Your task to perform on an android device: What's the weather? Image 0: 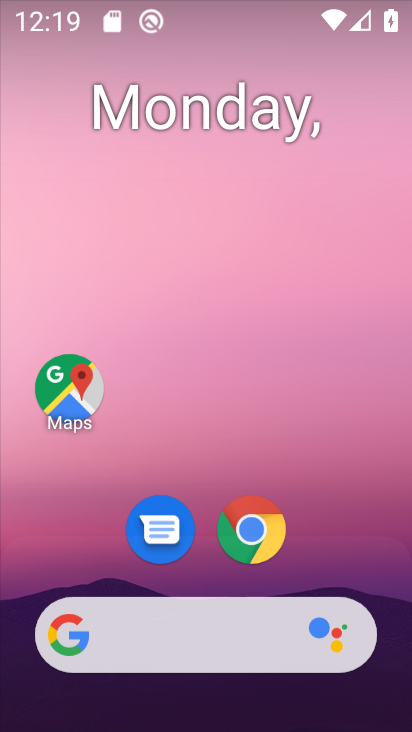
Step 0: drag from (343, 554) to (180, 0)
Your task to perform on an android device: What's the weather? Image 1: 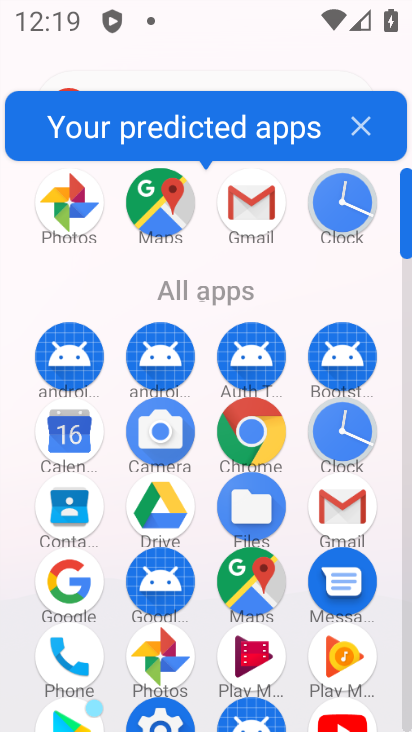
Step 1: drag from (203, 500) to (198, 225)
Your task to perform on an android device: What's the weather? Image 2: 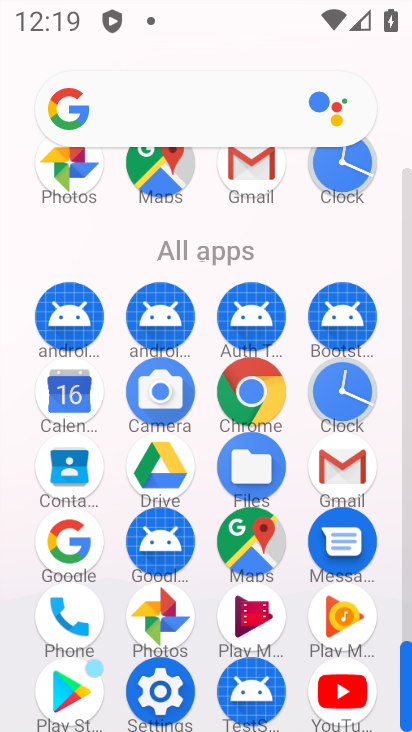
Step 2: click (68, 538)
Your task to perform on an android device: What's the weather? Image 3: 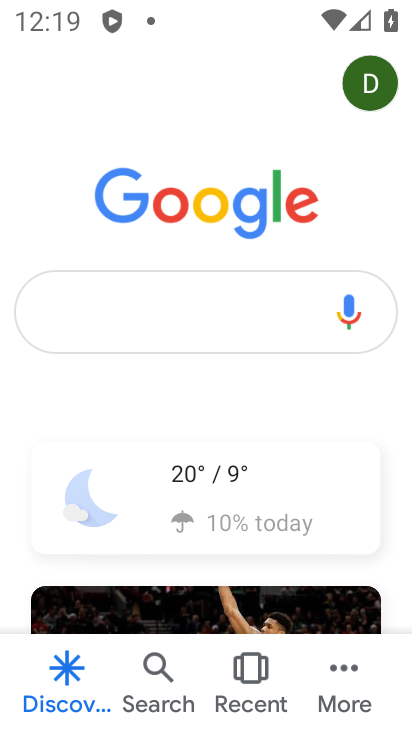
Step 3: click (203, 469)
Your task to perform on an android device: What's the weather? Image 4: 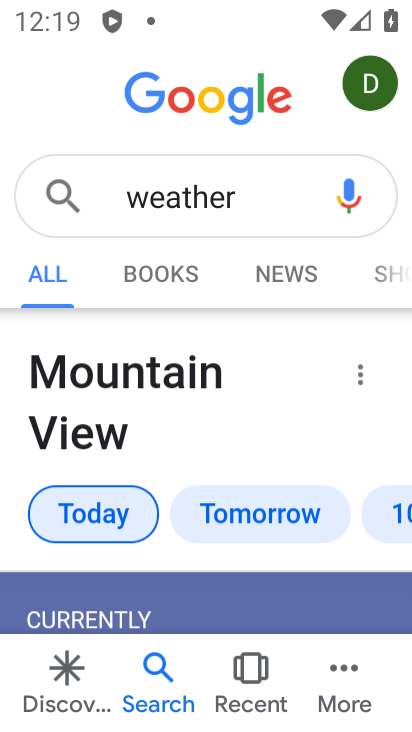
Step 4: task complete